Your task to perform on an android device: toggle data saver in the chrome app Image 0: 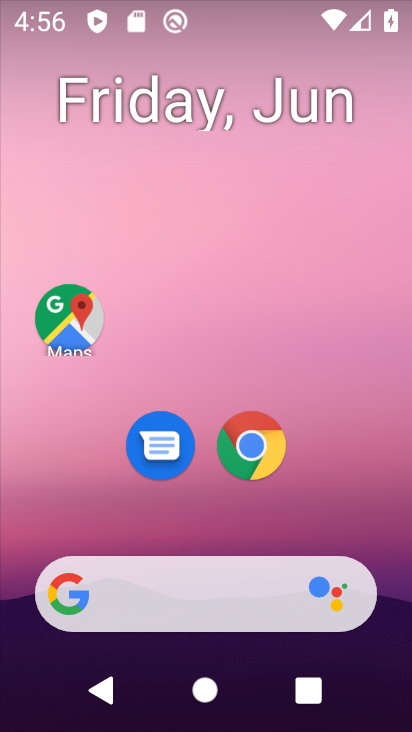
Step 0: drag from (377, 690) to (316, 77)
Your task to perform on an android device: toggle data saver in the chrome app Image 1: 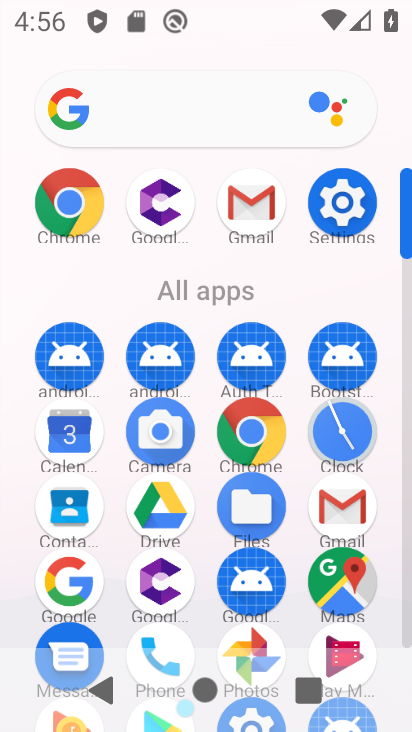
Step 1: drag from (2, 618) to (9, 217)
Your task to perform on an android device: toggle data saver in the chrome app Image 2: 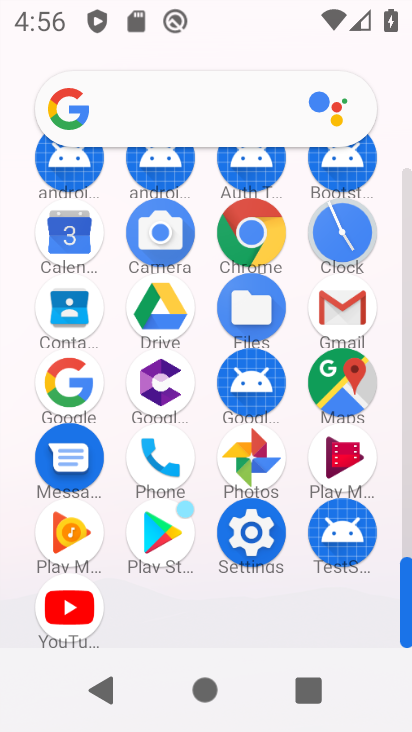
Step 2: click (247, 230)
Your task to perform on an android device: toggle data saver in the chrome app Image 3: 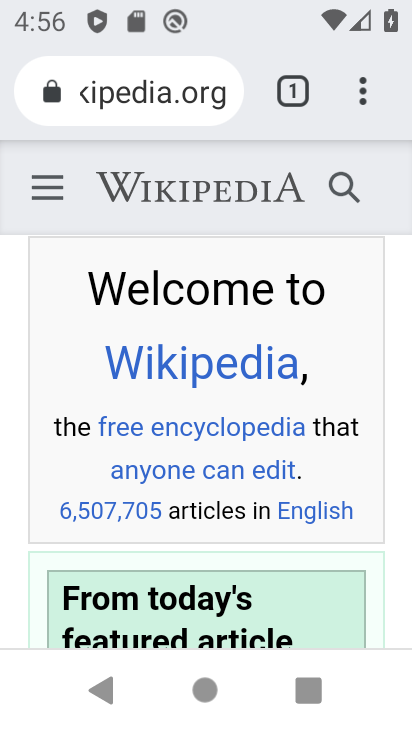
Step 3: drag from (363, 87) to (195, 479)
Your task to perform on an android device: toggle data saver in the chrome app Image 4: 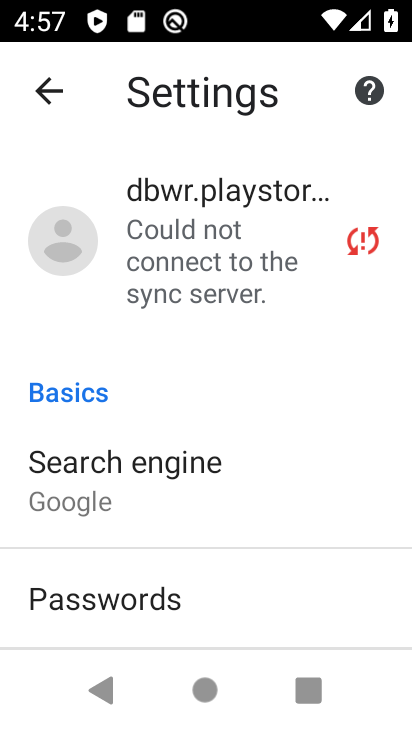
Step 4: drag from (246, 570) to (244, 200)
Your task to perform on an android device: toggle data saver in the chrome app Image 5: 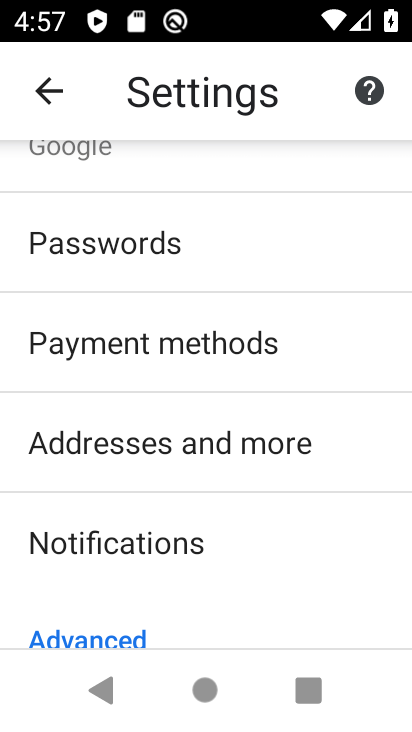
Step 5: drag from (244, 584) to (256, 204)
Your task to perform on an android device: toggle data saver in the chrome app Image 6: 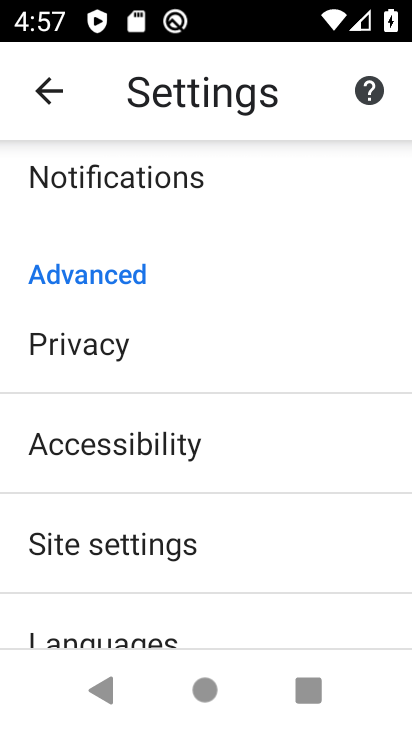
Step 6: drag from (256, 612) to (256, 223)
Your task to perform on an android device: toggle data saver in the chrome app Image 7: 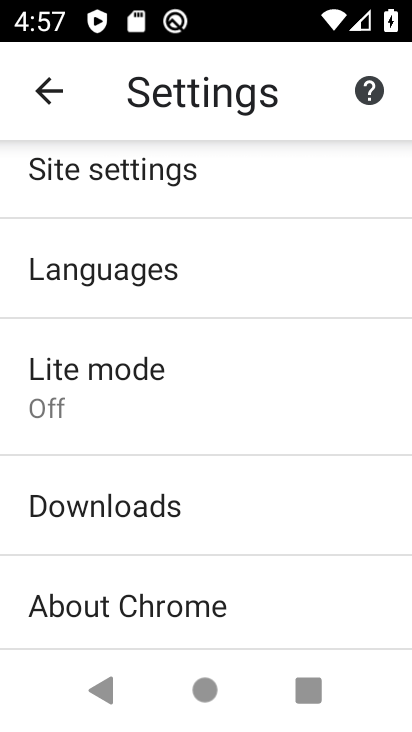
Step 7: click (171, 393)
Your task to perform on an android device: toggle data saver in the chrome app Image 8: 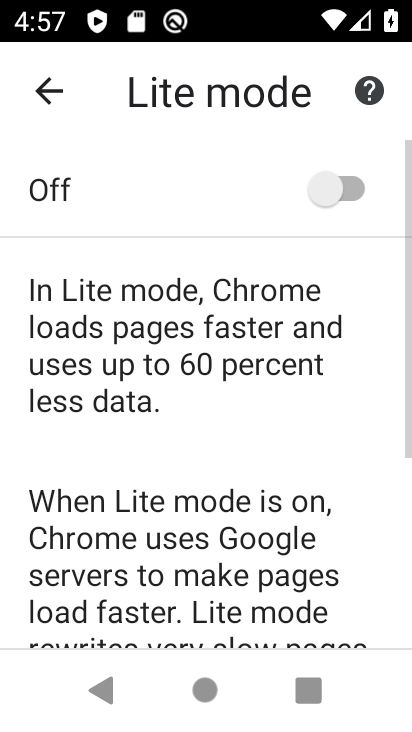
Step 8: click (341, 173)
Your task to perform on an android device: toggle data saver in the chrome app Image 9: 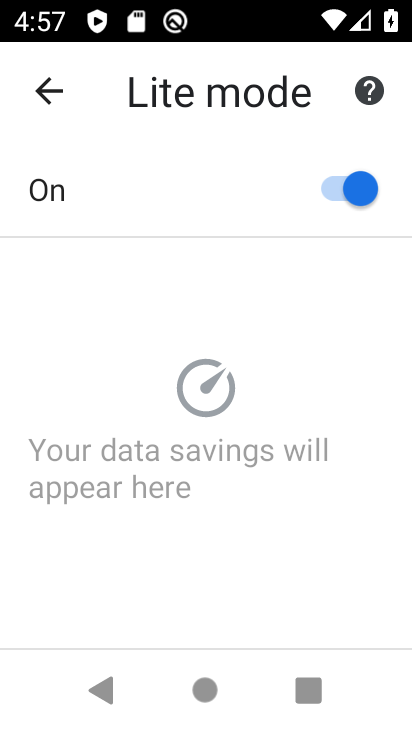
Step 9: task complete